Your task to perform on an android device: search for starred emails in the gmail app Image 0: 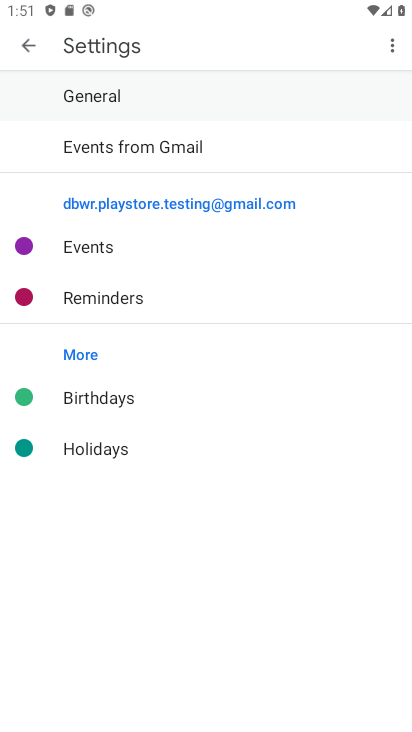
Step 0: press home button
Your task to perform on an android device: search for starred emails in the gmail app Image 1: 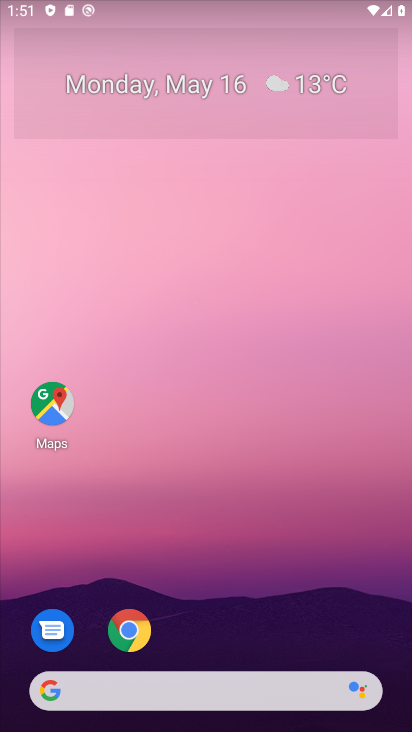
Step 1: drag from (294, 634) to (245, 183)
Your task to perform on an android device: search for starred emails in the gmail app Image 2: 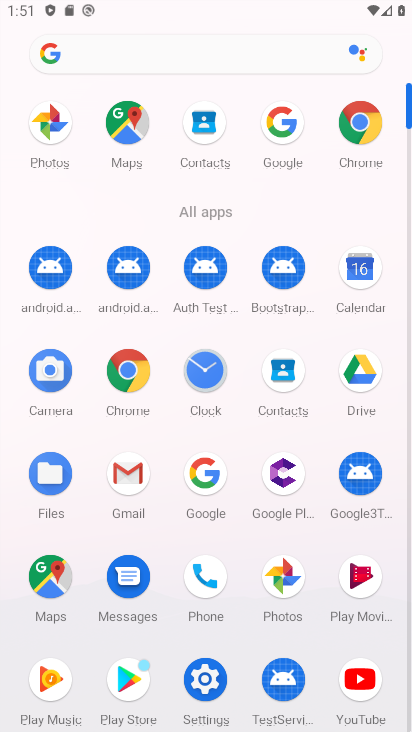
Step 2: click (119, 489)
Your task to perform on an android device: search for starred emails in the gmail app Image 3: 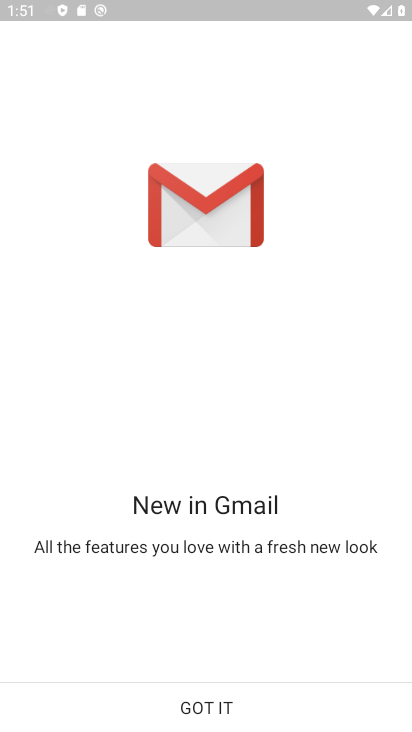
Step 3: click (220, 700)
Your task to perform on an android device: search for starred emails in the gmail app Image 4: 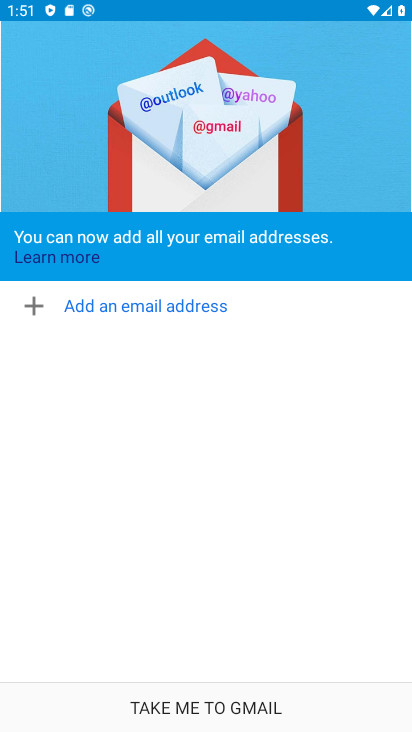
Step 4: click (240, 700)
Your task to perform on an android device: search for starred emails in the gmail app Image 5: 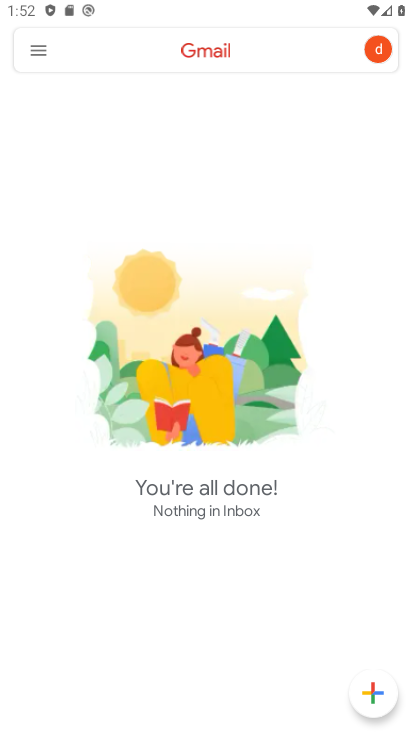
Step 5: click (40, 52)
Your task to perform on an android device: search for starred emails in the gmail app Image 6: 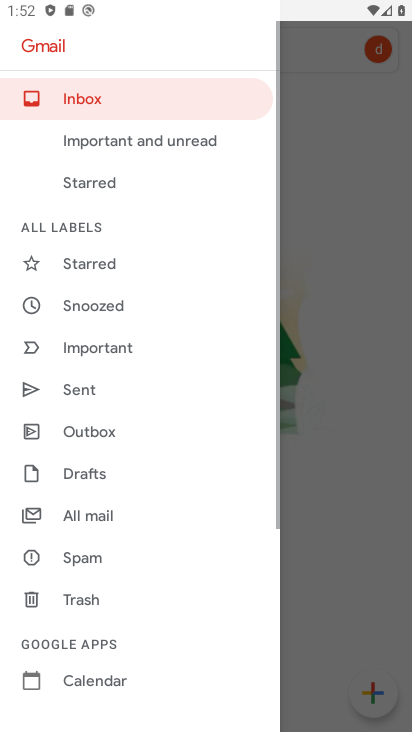
Step 6: click (89, 266)
Your task to perform on an android device: search for starred emails in the gmail app Image 7: 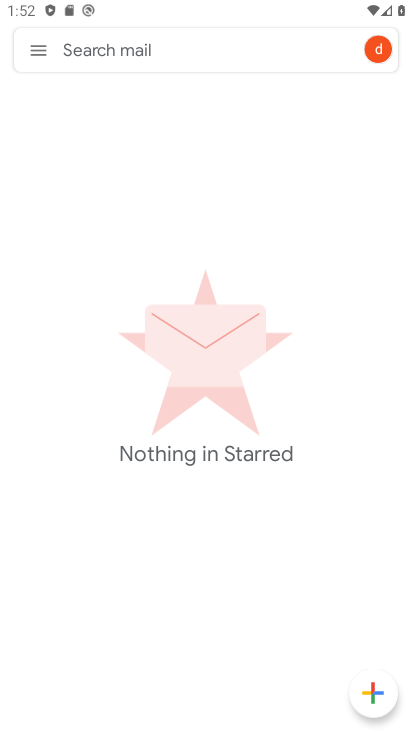
Step 7: task complete